Your task to perform on an android device: toggle show notifications on the lock screen Image 0: 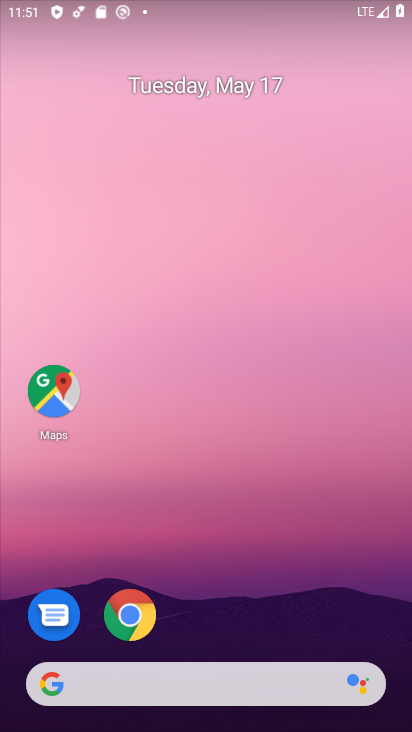
Step 0: drag from (276, 697) to (334, 337)
Your task to perform on an android device: toggle show notifications on the lock screen Image 1: 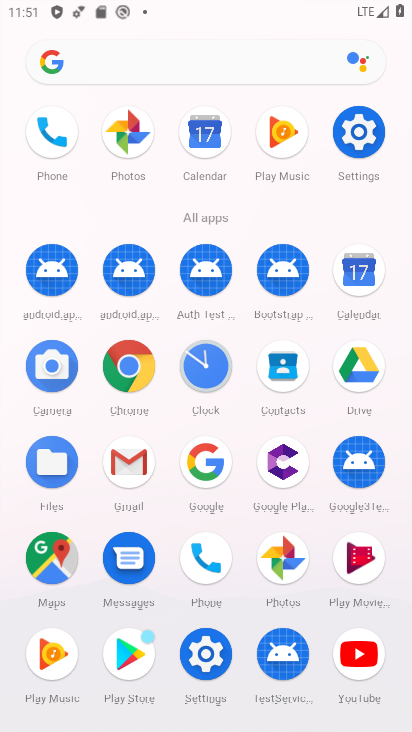
Step 1: click (361, 124)
Your task to perform on an android device: toggle show notifications on the lock screen Image 2: 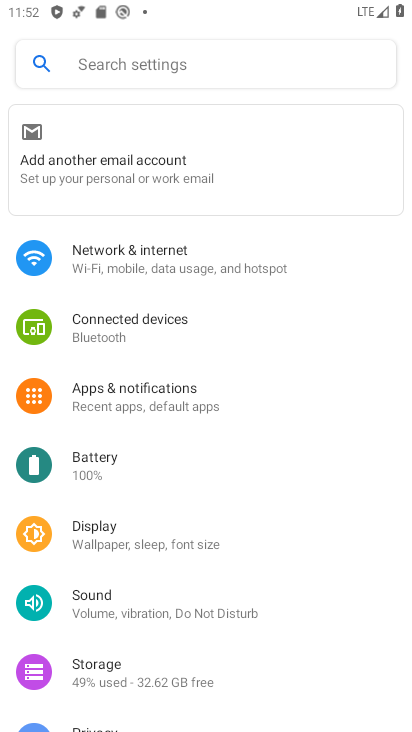
Step 2: click (111, 67)
Your task to perform on an android device: toggle show notifications on the lock screen Image 3: 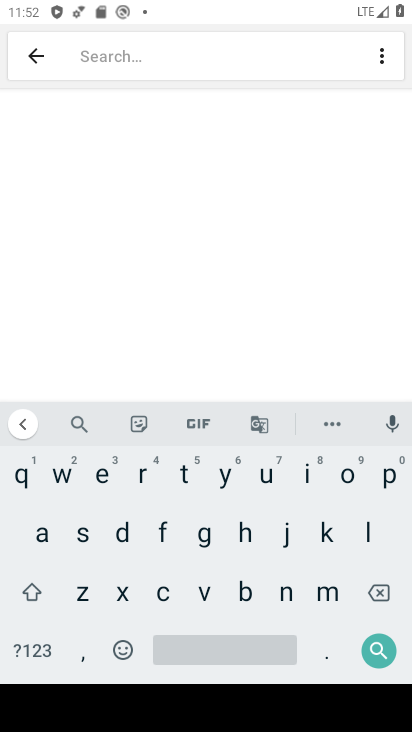
Step 3: click (285, 587)
Your task to perform on an android device: toggle show notifications on the lock screen Image 4: 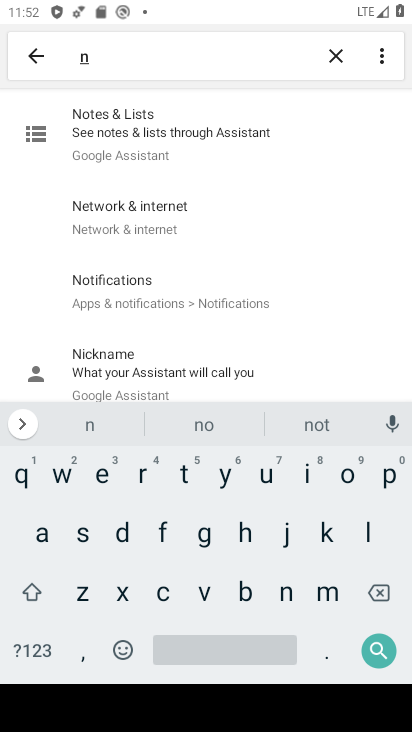
Step 4: click (345, 477)
Your task to perform on an android device: toggle show notifications on the lock screen Image 5: 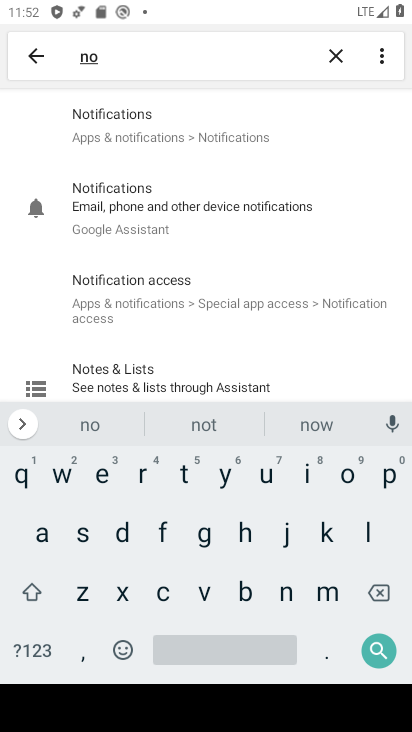
Step 5: click (149, 137)
Your task to perform on an android device: toggle show notifications on the lock screen Image 6: 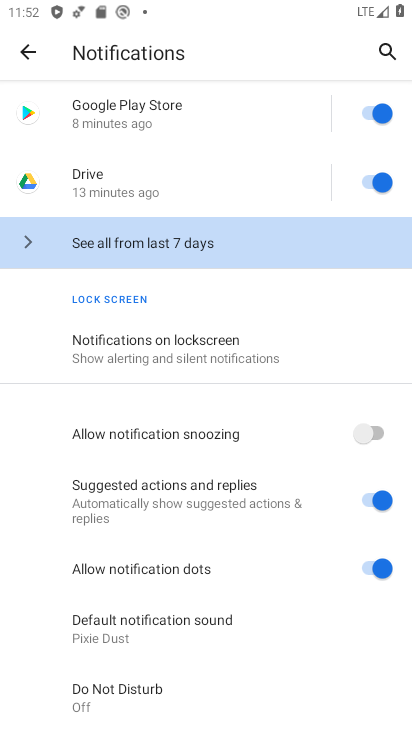
Step 6: click (125, 334)
Your task to perform on an android device: toggle show notifications on the lock screen Image 7: 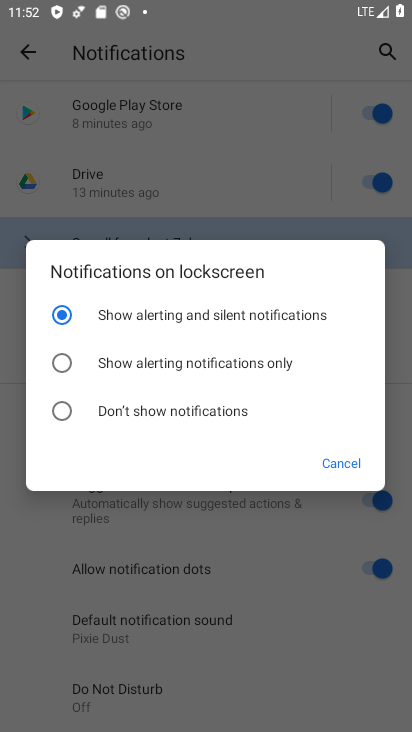
Step 7: task complete